Your task to perform on an android device: Go to Android settings Image 0: 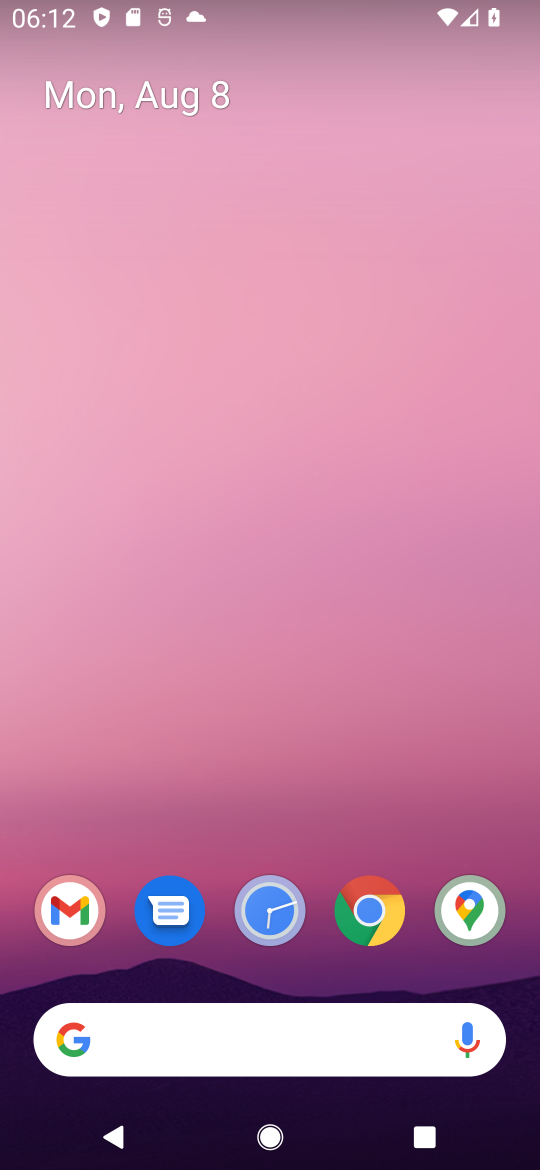
Step 0: drag from (202, 1041) to (326, 585)
Your task to perform on an android device: Go to Android settings Image 1: 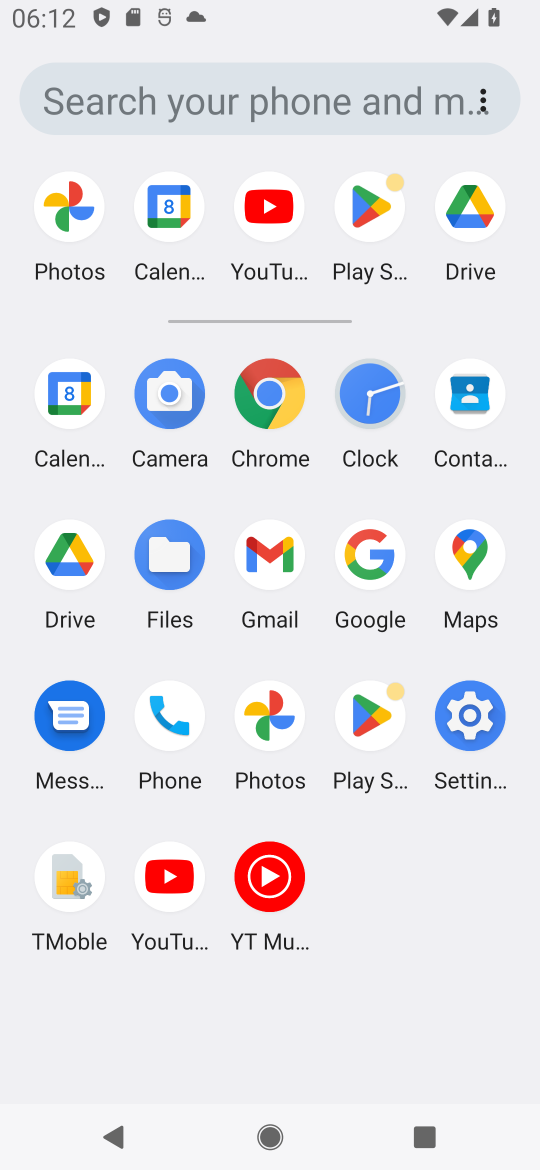
Step 1: click (470, 718)
Your task to perform on an android device: Go to Android settings Image 2: 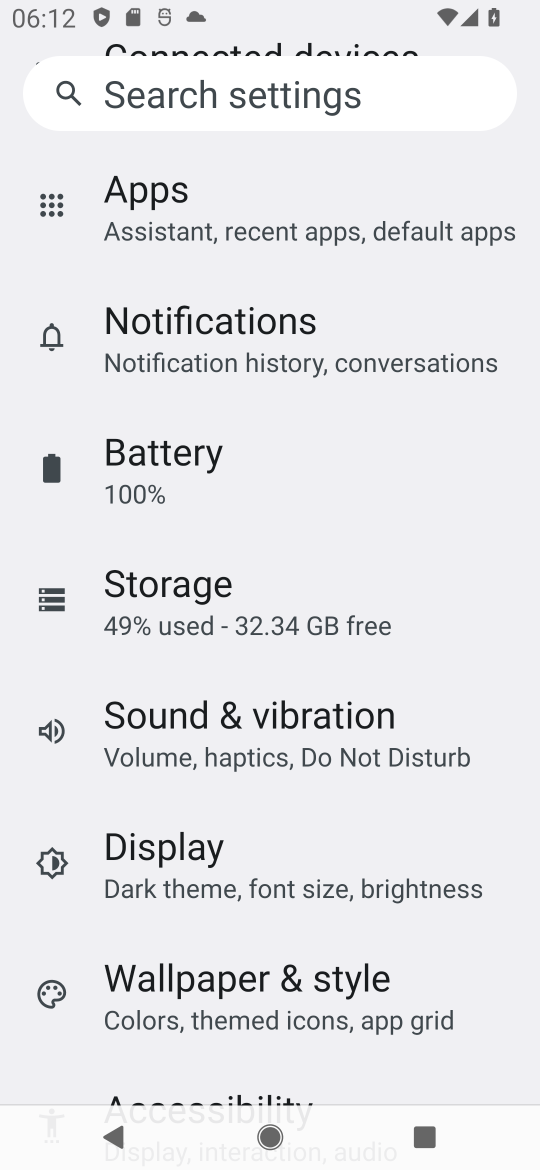
Step 2: task complete